Your task to perform on an android device: turn on wifi Image 0: 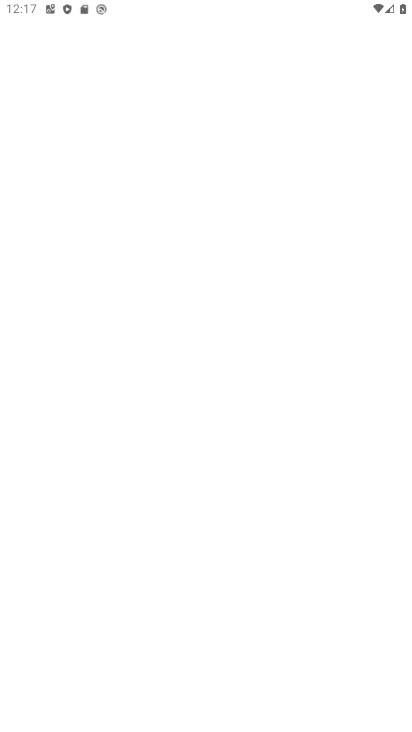
Step 0: drag from (233, 667) to (315, 254)
Your task to perform on an android device: turn on wifi Image 1: 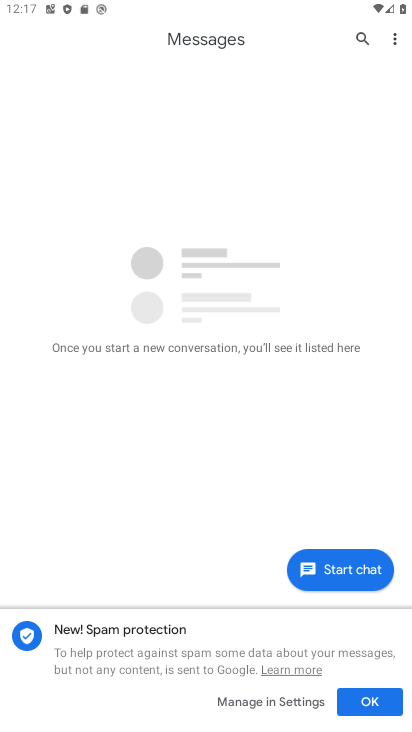
Step 1: task complete